Your task to perform on an android device: Open Yahoo.com Image 0: 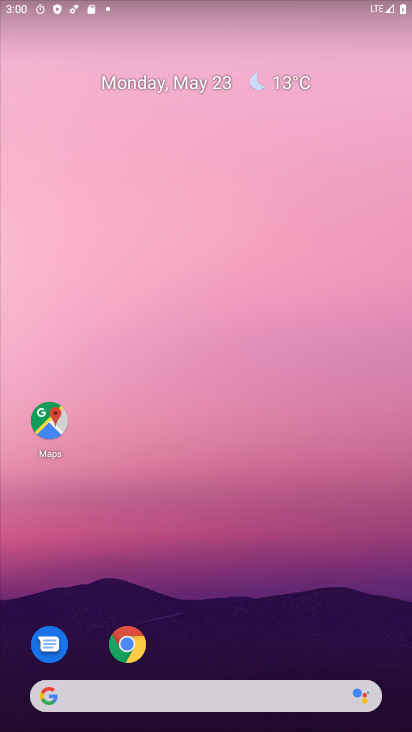
Step 0: click (133, 648)
Your task to perform on an android device: Open Yahoo.com Image 1: 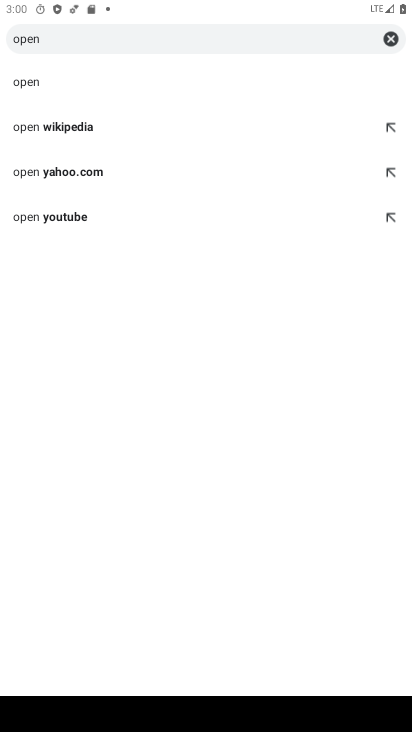
Step 1: click (384, 42)
Your task to perform on an android device: Open Yahoo.com Image 2: 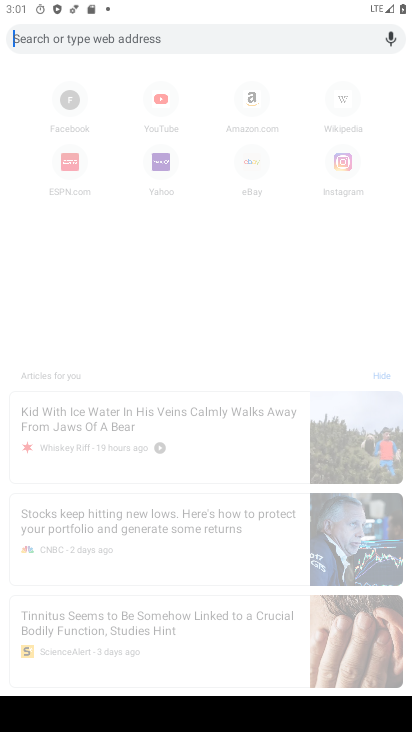
Step 2: click (151, 173)
Your task to perform on an android device: Open Yahoo.com Image 3: 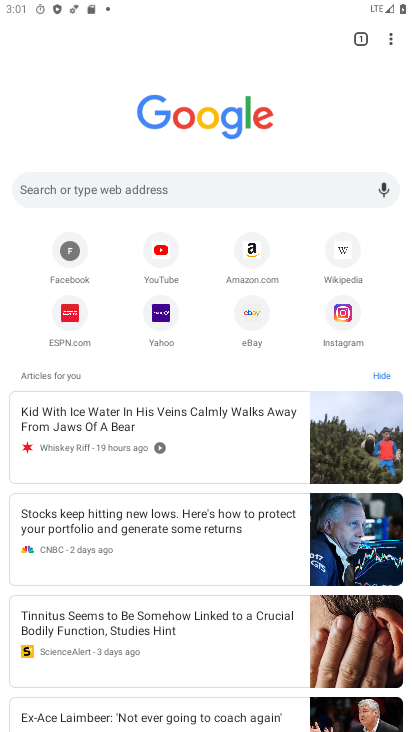
Step 3: click (160, 335)
Your task to perform on an android device: Open Yahoo.com Image 4: 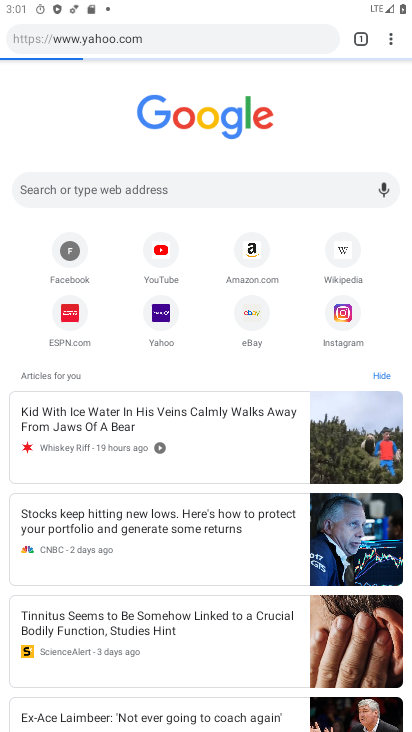
Step 4: task complete